Your task to perform on an android device: open a bookmark in the chrome app Image 0: 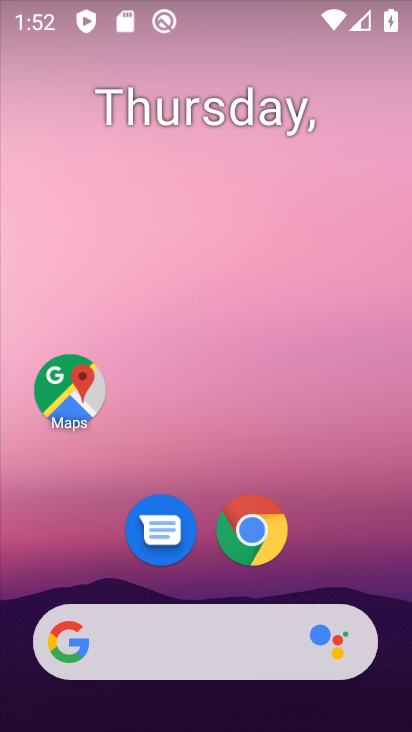
Step 0: click (231, 524)
Your task to perform on an android device: open a bookmark in the chrome app Image 1: 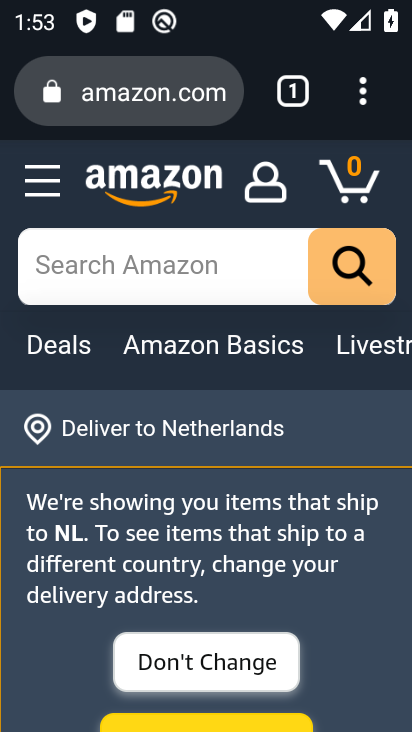
Step 1: click (364, 92)
Your task to perform on an android device: open a bookmark in the chrome app Image 2: 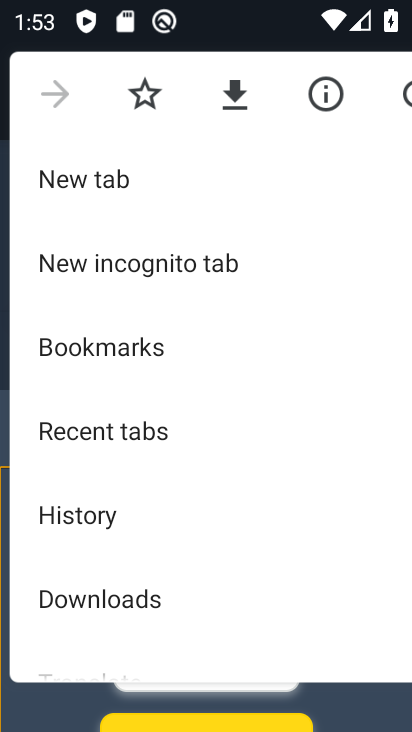
Step 2: click (163, 347)
Your task to perform on an android device: open a bookmark in the chrome app Image 3: 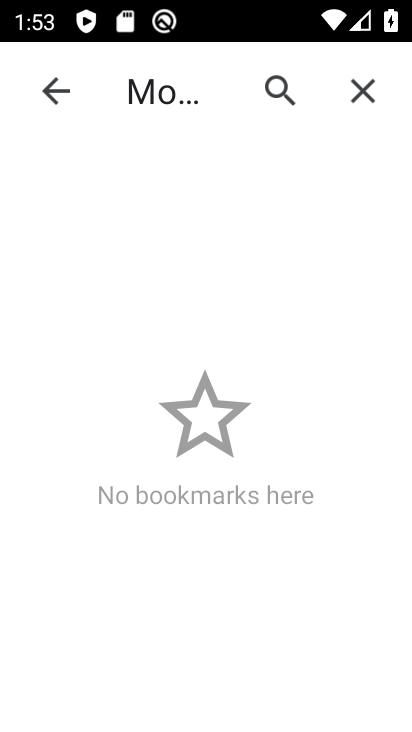
Step 3: task complete